Your task to perform on an android device: install app "Google Pay: Save, Pay, Manage" Image 0: 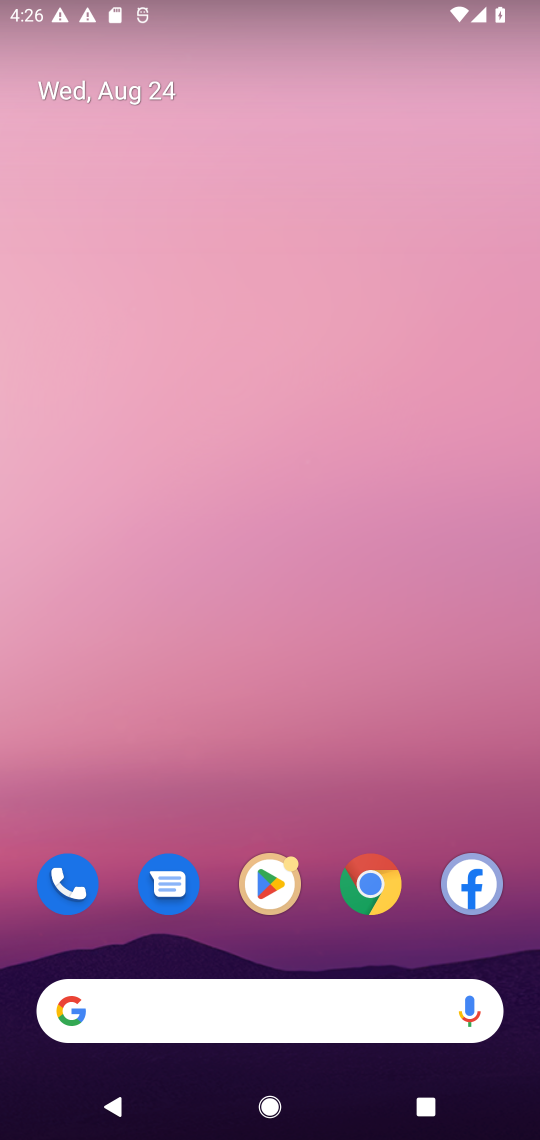
Step 0: click (269, 877)
Your task to perform on an android device: install app "Google Pay: Save, Pay, Manage" Image 1: 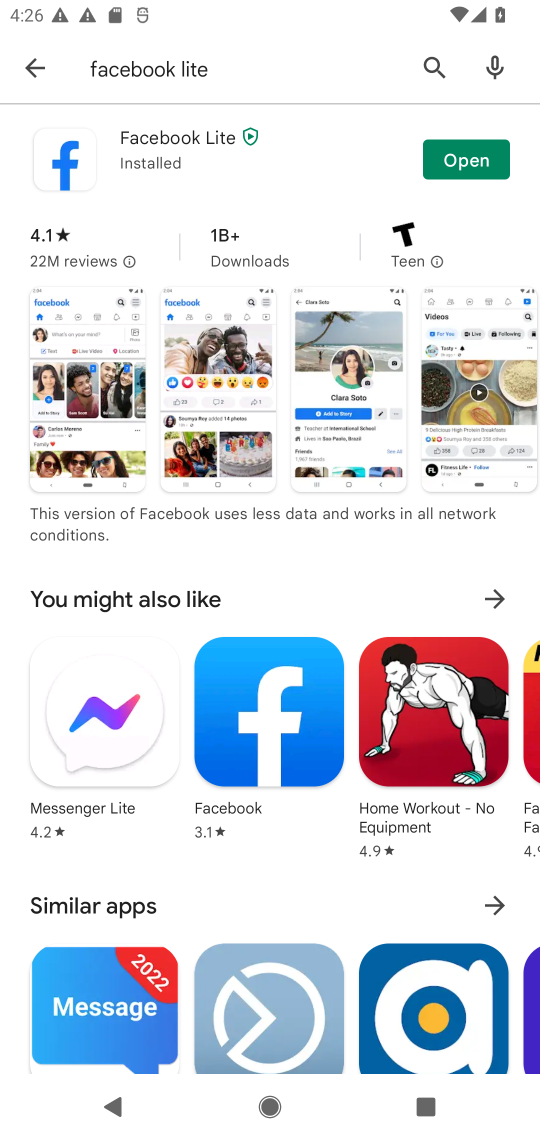
Step 1: click (32, 66)
Your task to perform on an android device: install app "Google Pay: Save, Pay, Manage" Image 2: 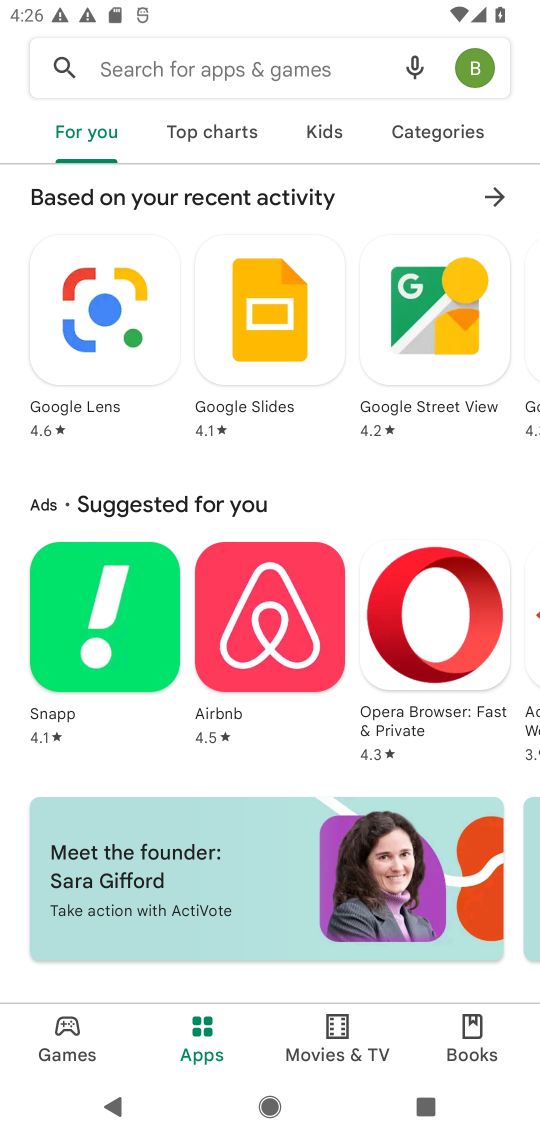
Step 2: click (188, 66)
Your task to perform on an android device: install app "Google Pay: Save, Pay, Manage" Image 3: 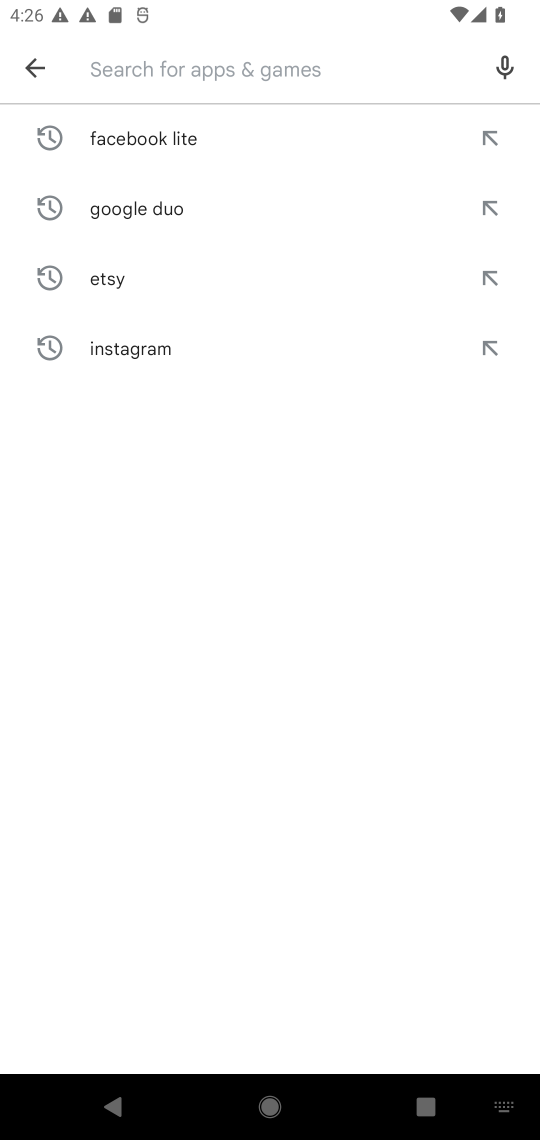
Step 3: click (34, 75)
Your task to perform on an android device: install app "Google Pay: Save, Pay, Manage" Image 4: 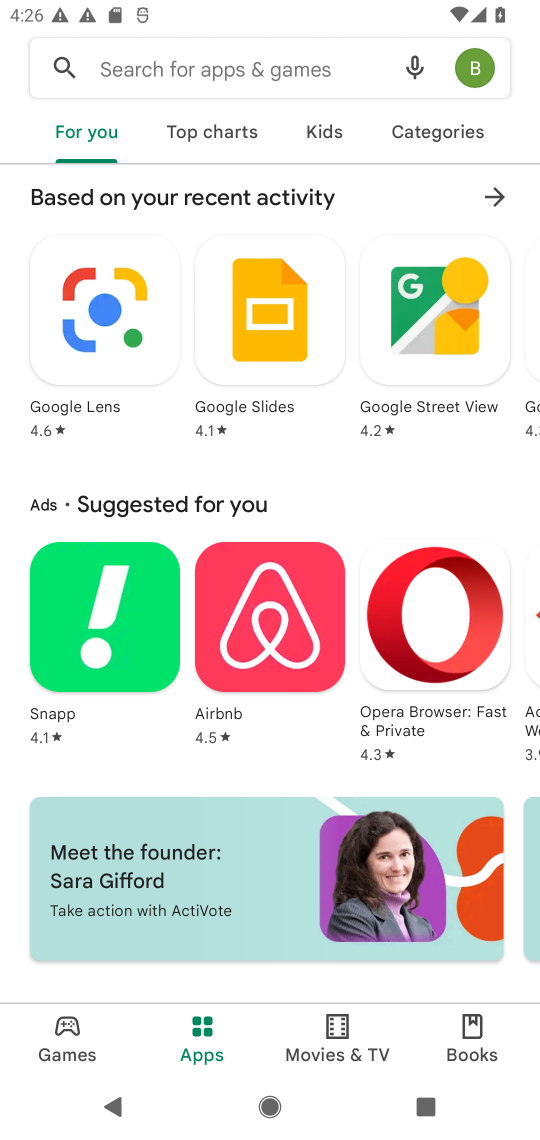
Step 4: click (200, 75)
Your task to perform on an android device: install app "Google Pay: Save, Pay, Manage" Image 5: 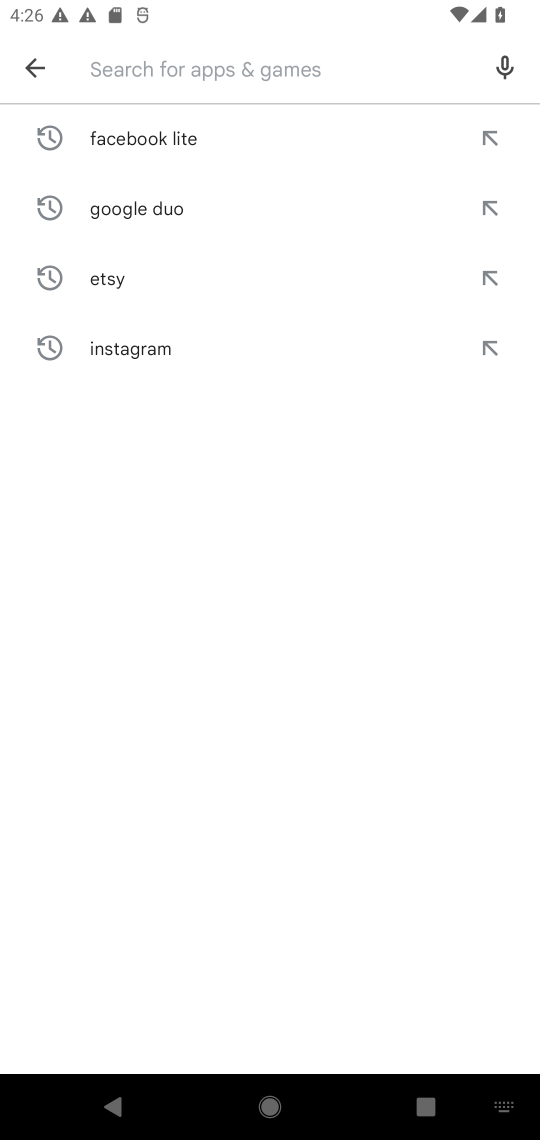
Step 5: type "Google Pay"
Your task to perform on an android device: install app "Google Pay: Save, Pay, Manage" Image 6: 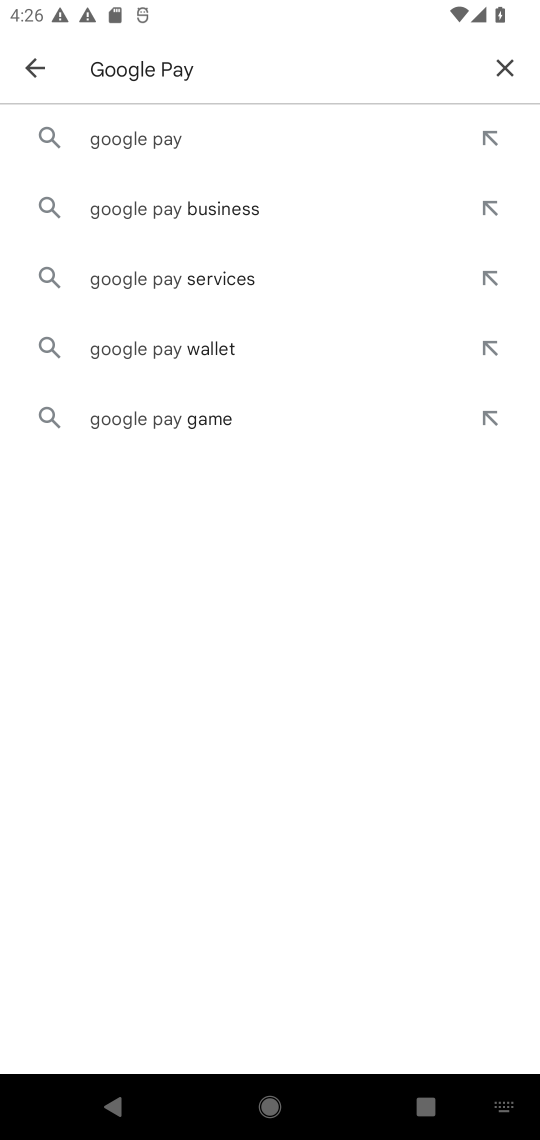
Step 6: click (135, 130)
Your task to perform on an android device: install app "Google Pay: Save, Pay, Manage" Image 7: 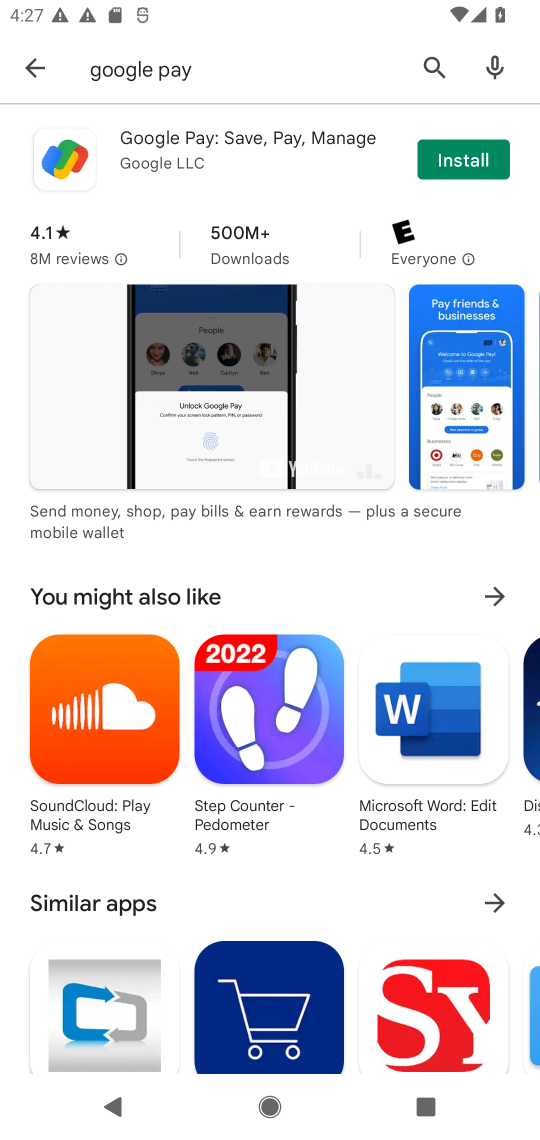
Step 7: click (441, 154)
Your task to perform on an android device: install app "Google Pay: Save, Pay, Manage" Image 8: 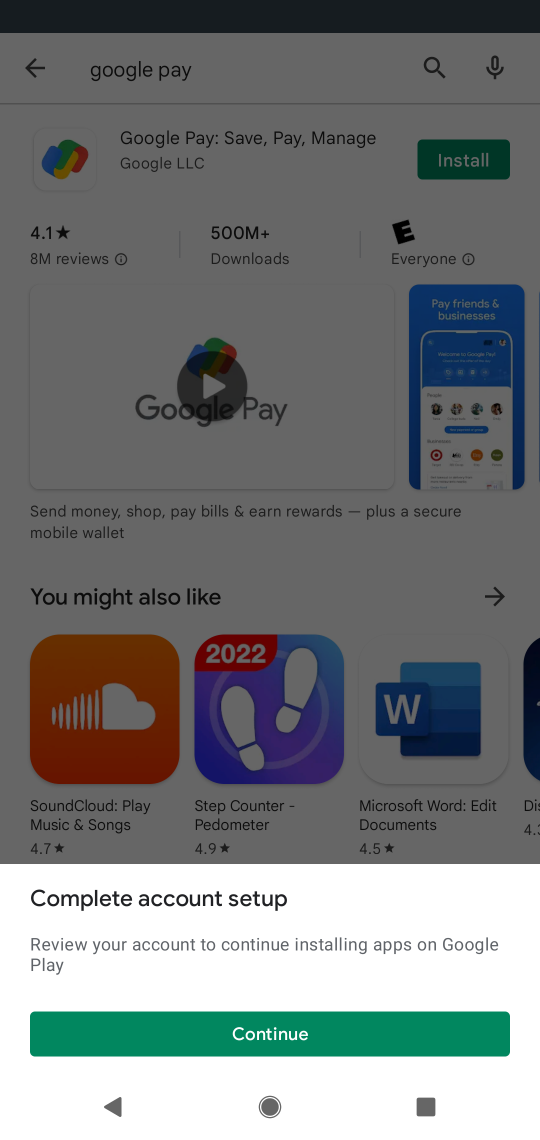
Step 8: click (274, 1026)
Your task to perform on an android device: install app "Google Pay: Save, Pay, Manage" Image 9: 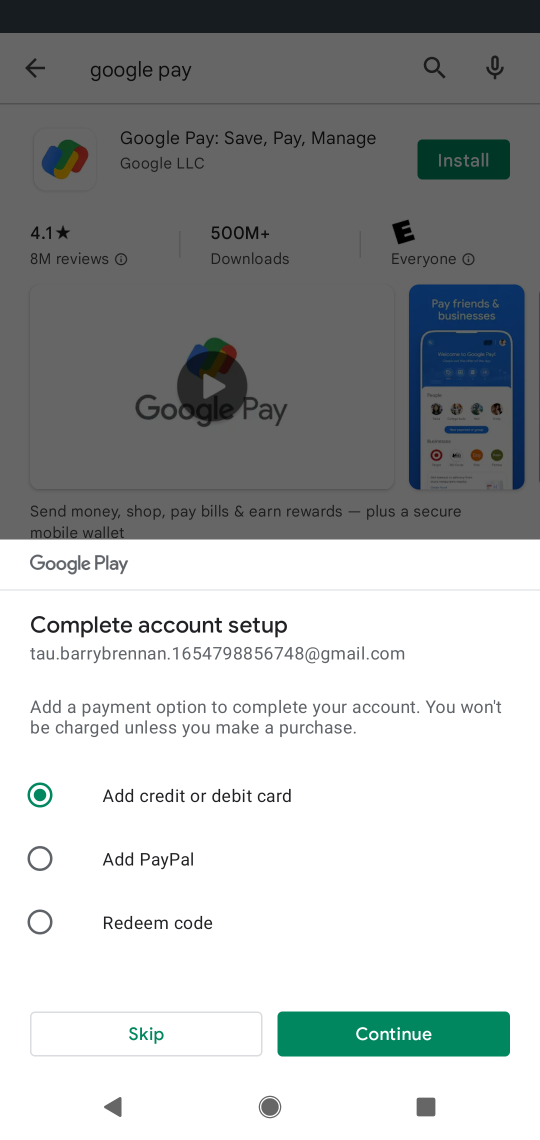
Step 9: click (146, 1026)
Your task to perform on an android device: install app "Google Pay: Save, Pay, Manage" Image 10: 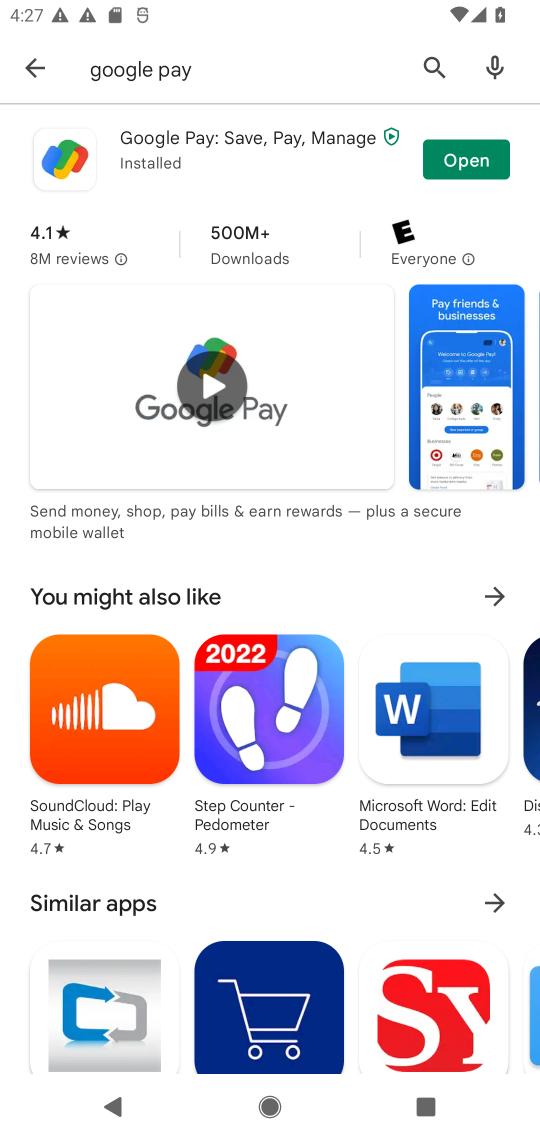
Step 10: click (446, 149)
Your task to perform on an android device: install app "Google Pay: Save, Pay, Manage" Image 11: 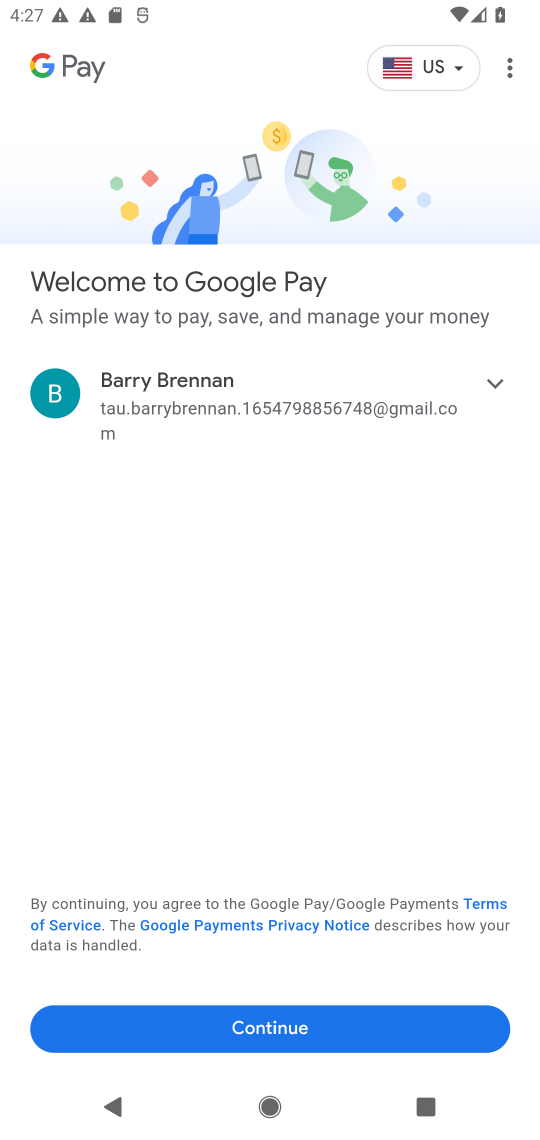
Step 11: task complete